Your task to perform on an android device: star an email in the gmail app Image 0: 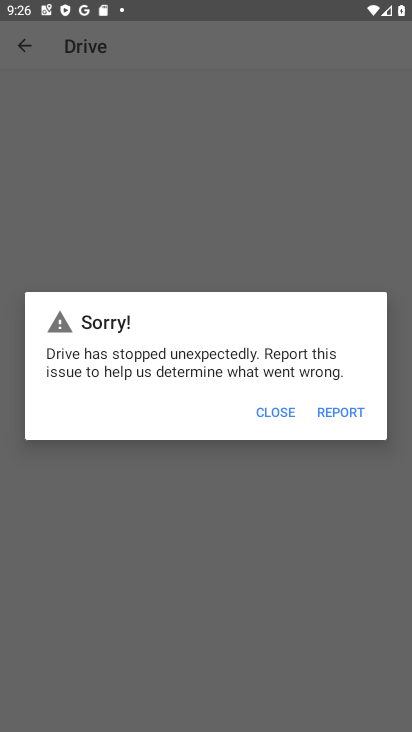
Step 0: press home button
Your task to perform on an android device: star an email in the gmail app Image 1: 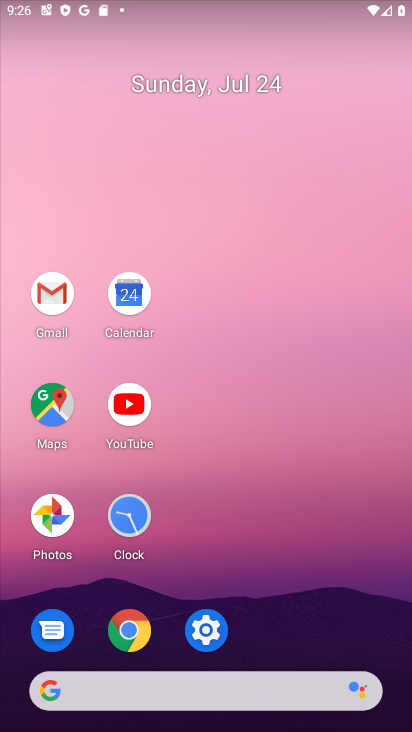
Step 1: click (50, 292)
Your task to perform on an android device: star an email in the gmail app Image 2: 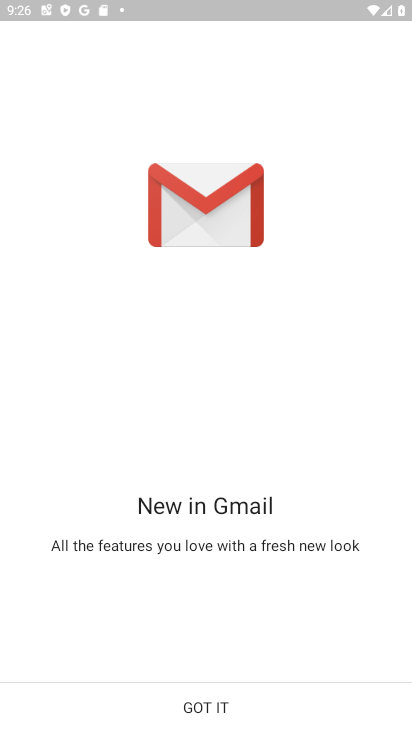
Step 2: click (204, 702)
Your task to perform on an android device: star an email in the gmail app Image 3: 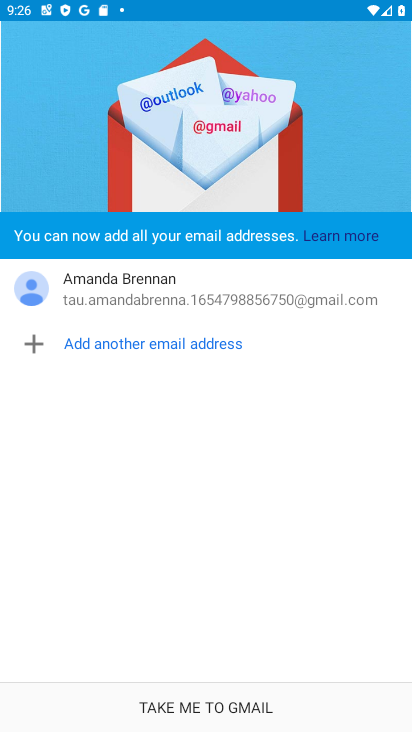
Step 3: click (204, 702)
Your task to perform on an android device: star an email in the gmail app Image 4: 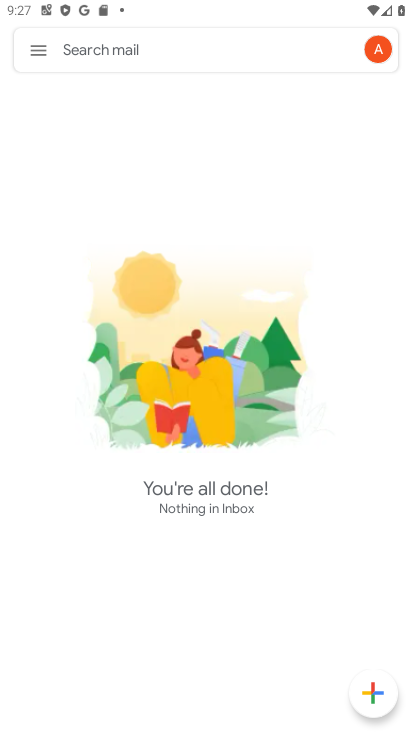
Step 4: click (32, 54)
Your task to perform on an android device: star an email in the gmail app Image 5: 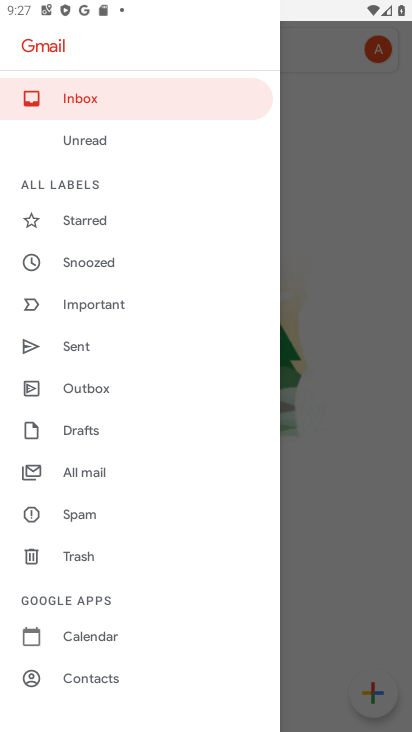
Step 5: click (91, 467)
Your task to perform on an android device: star an email in the gmail app Image 6: 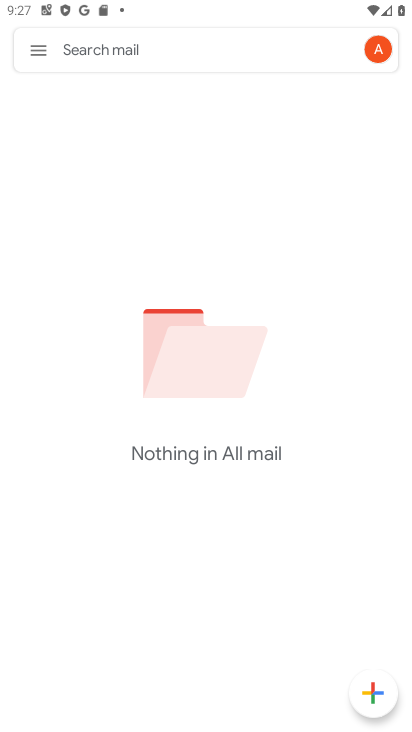
Step 6: task complete